Your task to perform on an android device: Show me the alarms in the clock app Image 0: 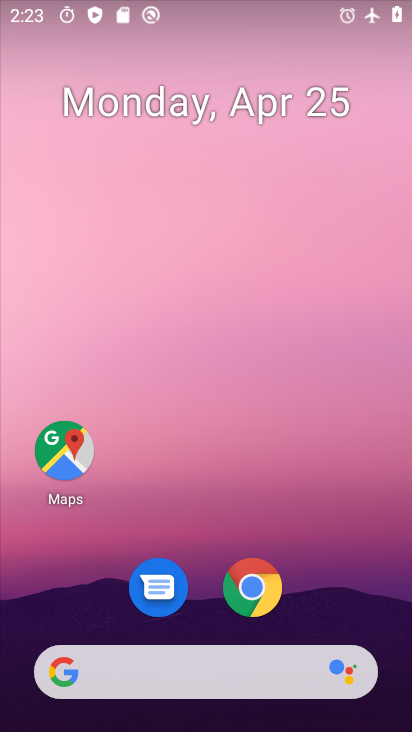
Step 0: drag from (339, 569) to (287, 100)
Your task to perform on an android device: Show me the alarms in the clock app Image 1: 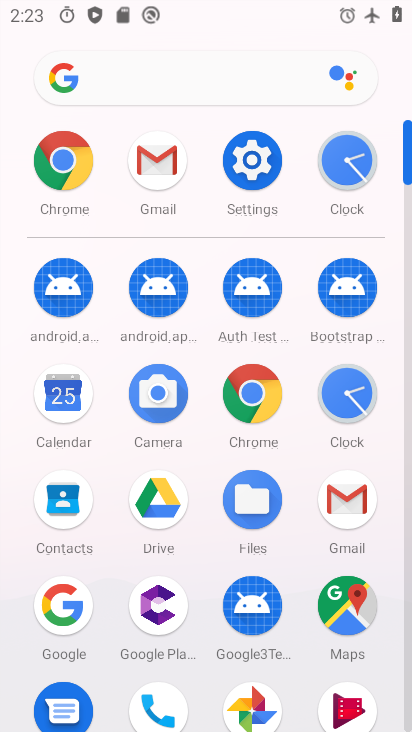
Step 1: click (361, 403)
Your task to perform on an android device: Show me the alarms in the clock app Image 2: 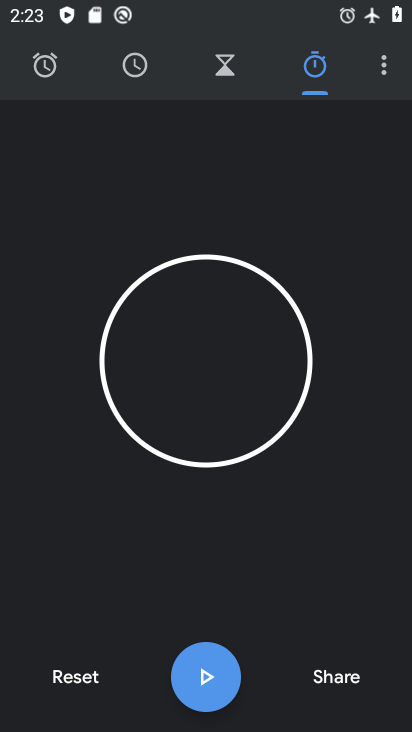
Step 2: click (46, 67)
Your task to perform on an android device: Show me the alarms in the clock app Image 3: 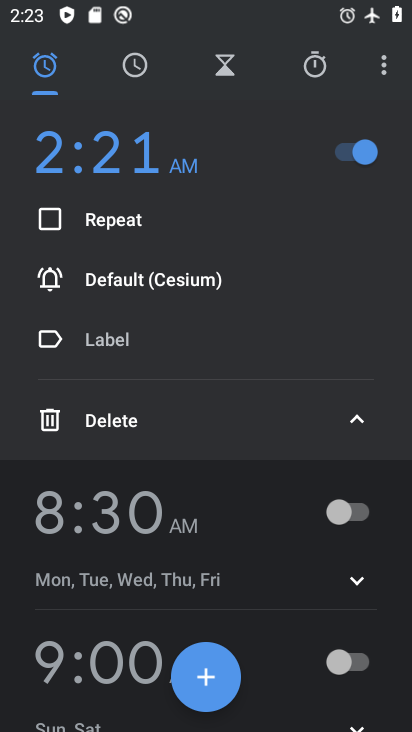
Step 3: task complete